Your task to perform on an android device: Open Yahoo.com Image 0: 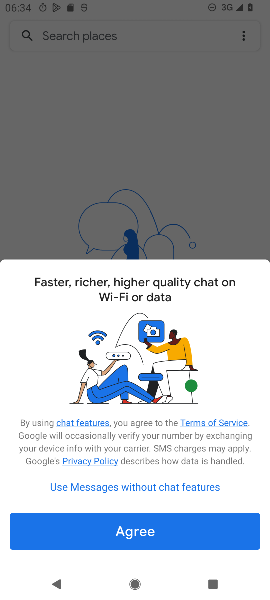
Step 0: press home button
Your task to perform on an android device: Open Yahoo.com Image 1: 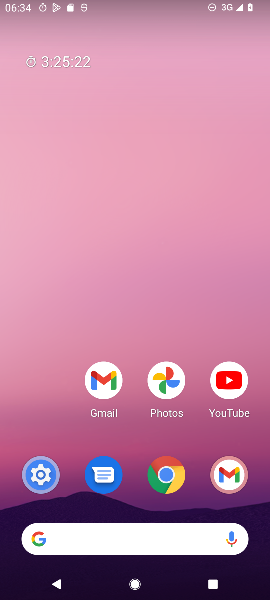
Step 1: drag from (60, 437) to (73, 216)
Your task to perform on an android device: Open Yahoo.com Image 2: 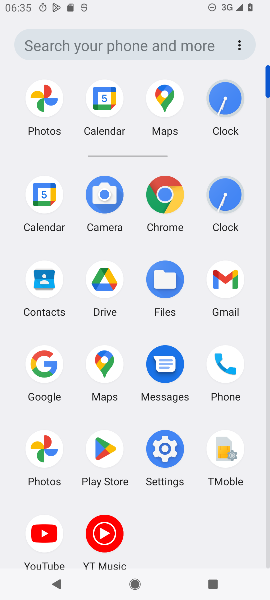
Step 2: click (159, 191)
Your task to perform on an android device: Open Yahoo.com Image 3: 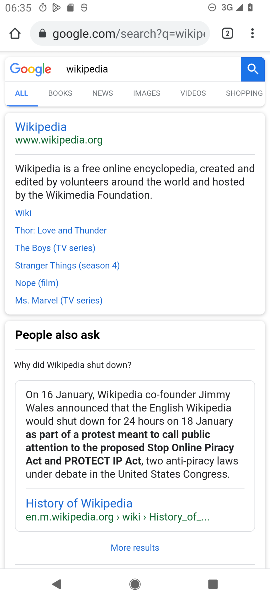
Step 3: click (158, 36)
Your task to perform on an android device: Open Yahoo.com Image 4: 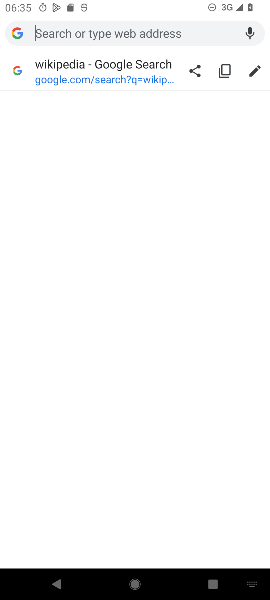
Step 4: type "yahoo.com"
Your task to perform on an android device: Open Yahoo.com Image 5: 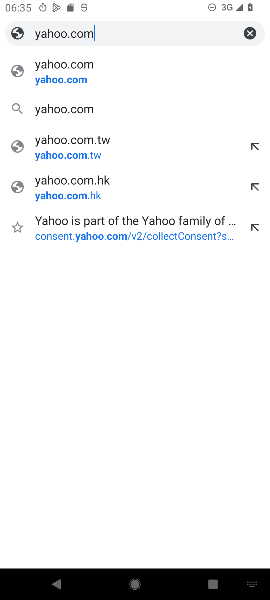
Step 5: click (83, 70)
Your task to perform on an android device: Open Yahoo.com Image 6: 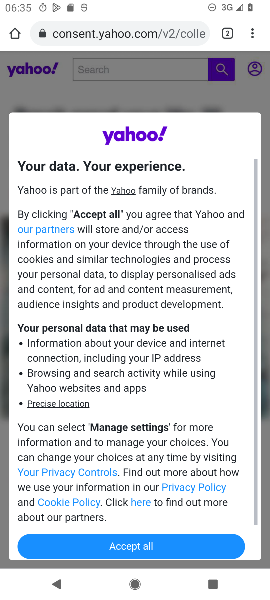
Step 6: task complete